Your task to perform on an android device: Open Reddit.com Image 0: 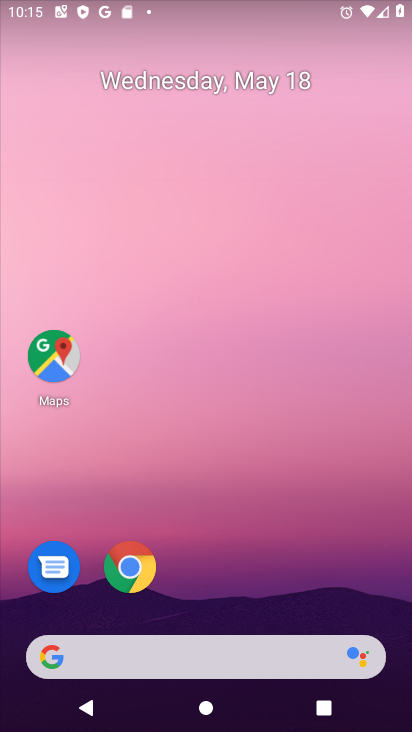
Step 0: click (130, 560)
Your task to perform on an android device: Open Reddit.com Image 1: 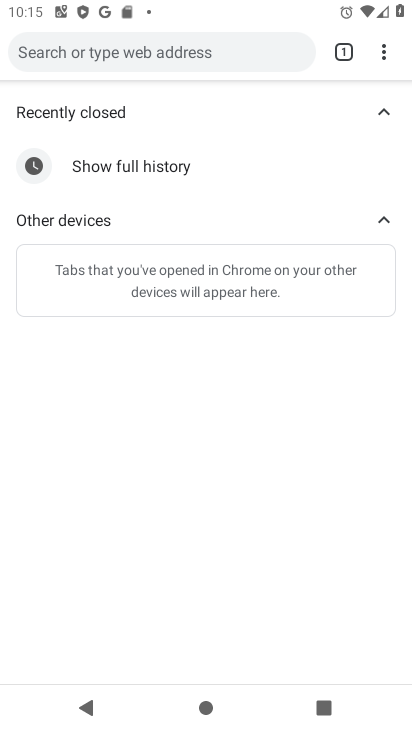
Step 1: click (155, 61)
Your task to perform on an android device: Open Reddit.com Image 2: 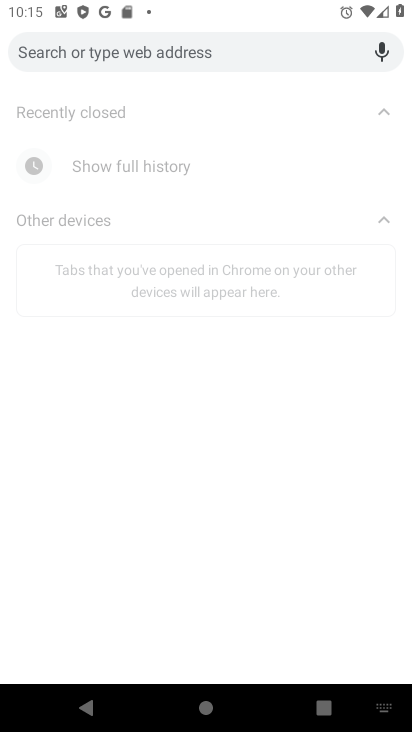
Step 2: type "reddit.com"
Your task to perform on an android device: Open Reddit.com Image 3: 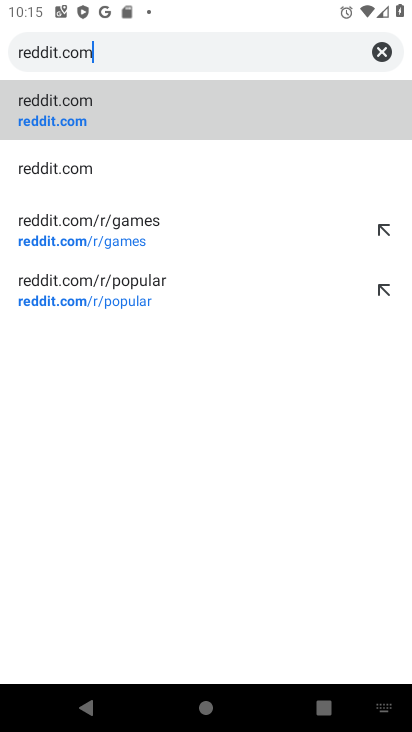
Step 3: click (105, 109)
Your task to perform on an android device: Open Reddit.com Image 4: 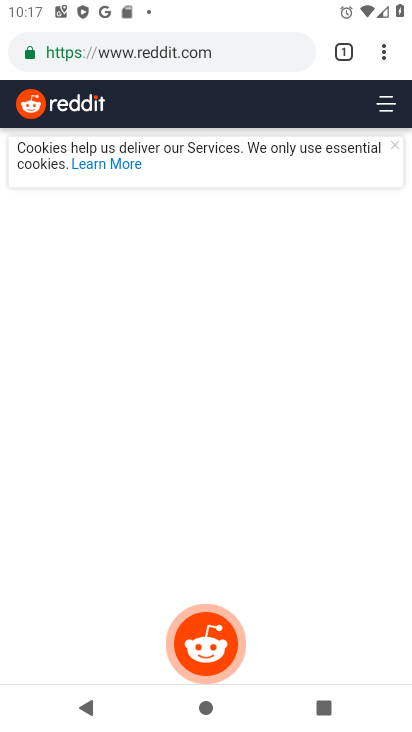
Step 4: task complete